Your task to perform on an android device: When is my next meeting? Image 0: 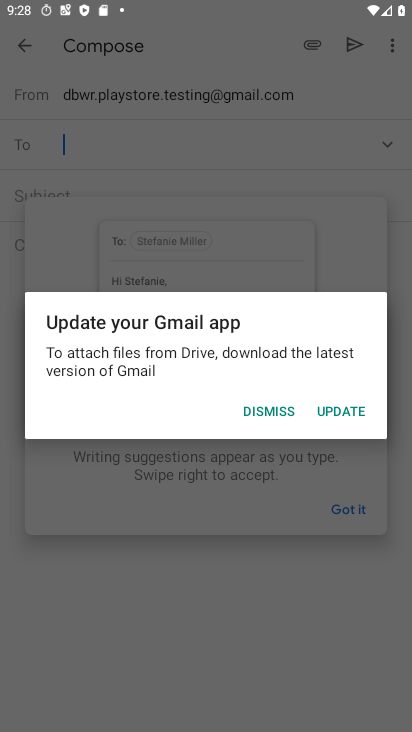
Step 0: press home button
Your task to perform on an android device: When is my next meeting? Image 1: 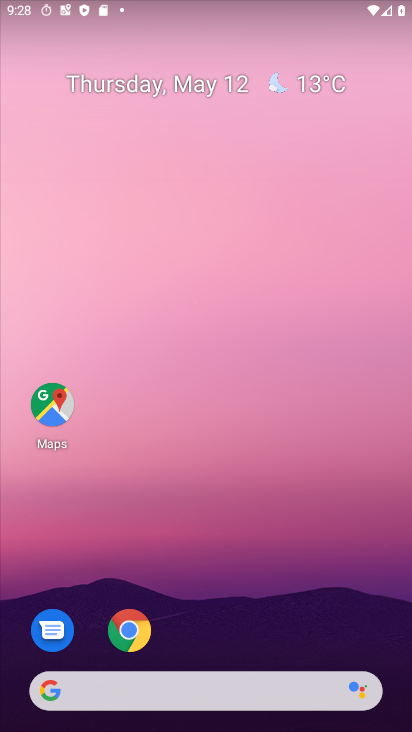
Step 1: drag from (211, 681) to (216, 177)
Your task to perform on an android device: When is my next meeting? Image 2: 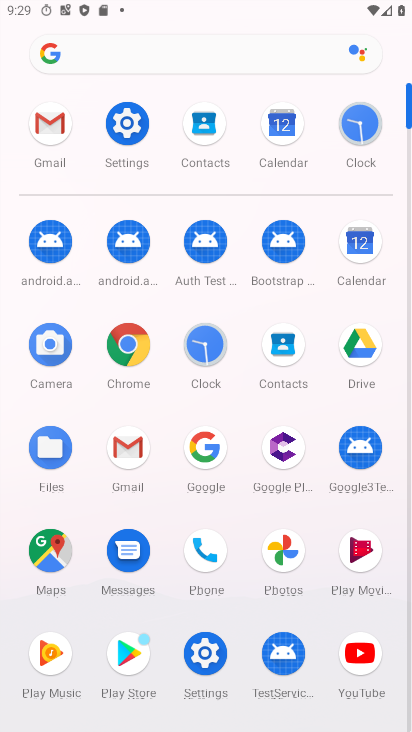
Step 2: click (355, 244)
Your task to perform on an android device: When is my next meeting? Image 3: 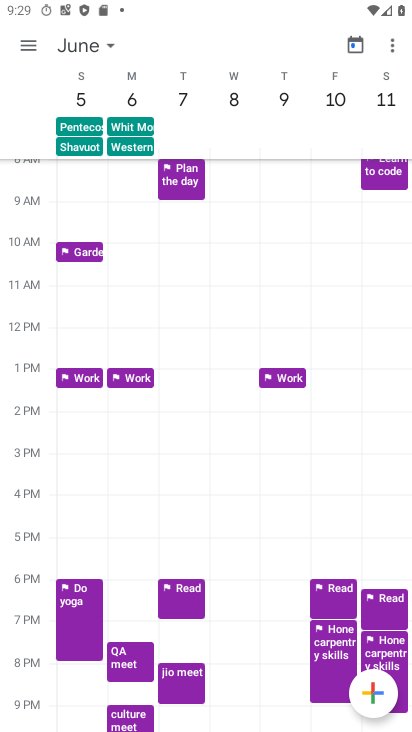
Step 3: click (23, 35)
Your task to perform on an android device: When is my next meeting? Image 4: 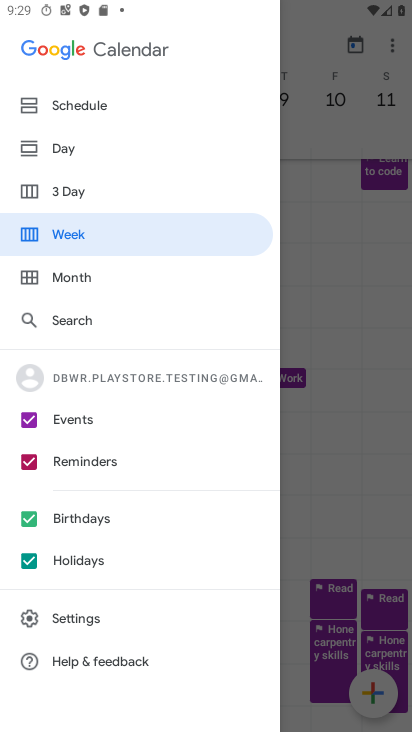
Step 4: click (72, 102)
Your task to perform on an android device: When is my next meeting? Image 5: 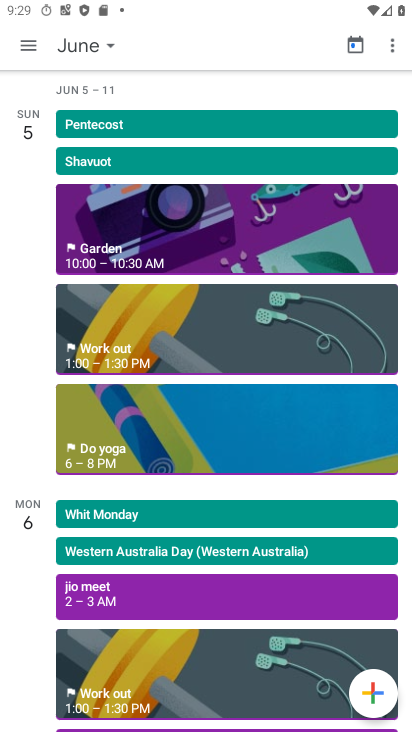
Step 5: click (106, 51)
Your task to perform on an android device: When is my next meeting? Image 6: 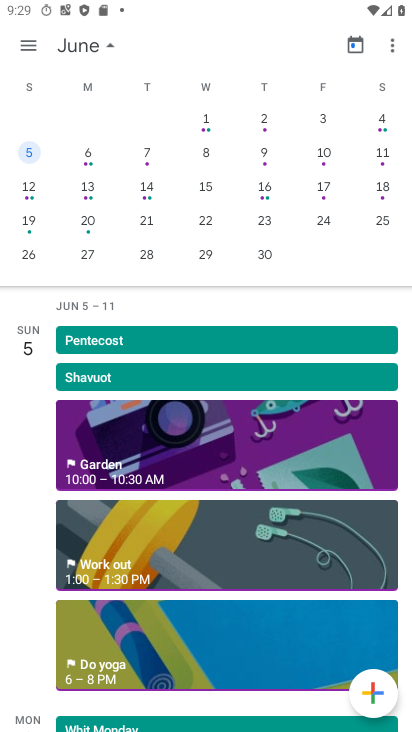
Step 6: drag from (59, 191) to (405, 169)
Your task to perform on an android device: When is my next meeting? Image 7: 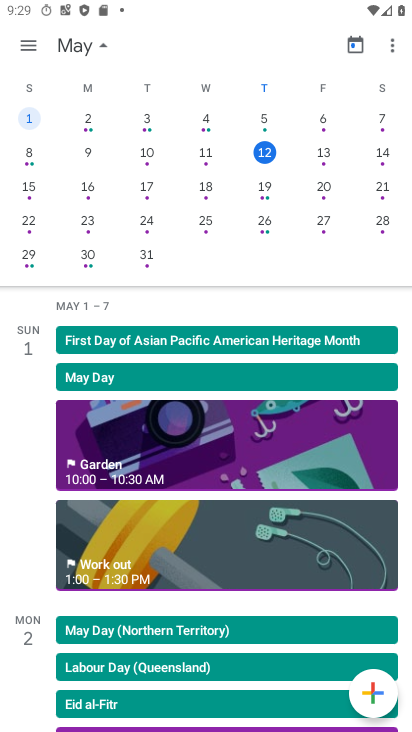
Step 7: click (261, 155)
Your task to perform on an android device: When is my next meeting? Image 8: 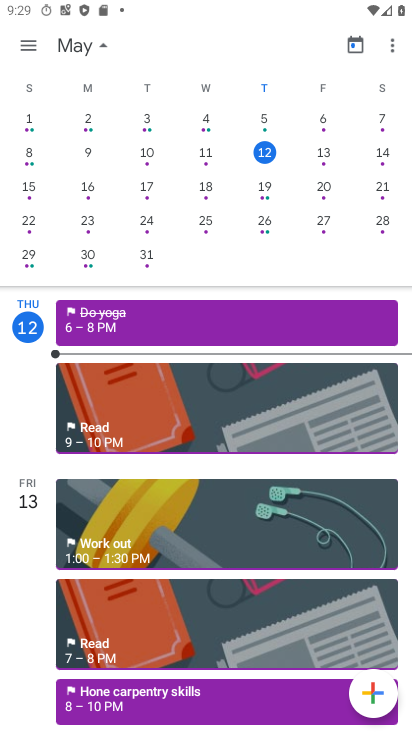
Step 8: click (94, 41)
Your task to perform on an android device: When is my next meeting? Image 9: 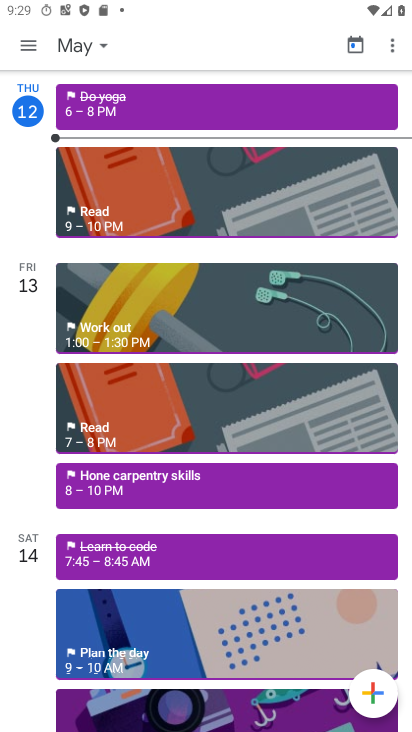
Step 9: task complete